Your task to perform on an android device: Go to settings Image 0: 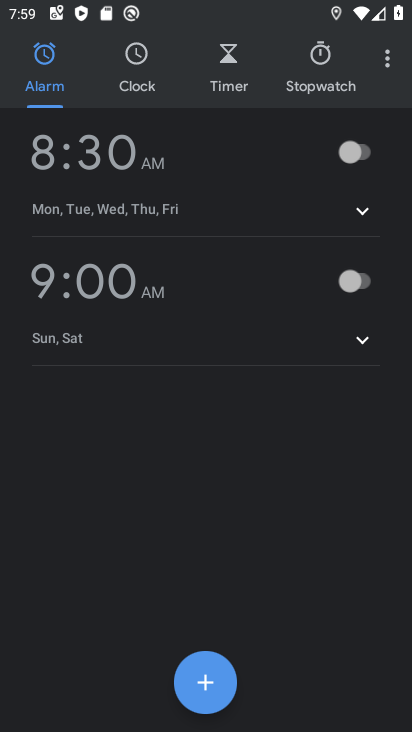
Step 0: press home button
Your task to perform on an android device: Go to settings Image 1: 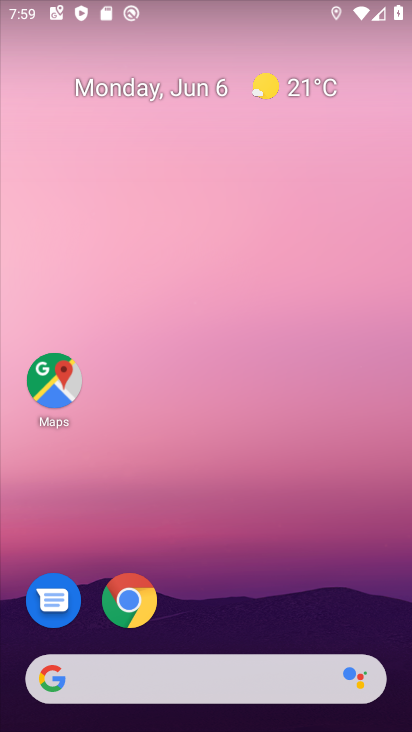
Step 1: drag from (377, 618) to (300, 17)
Your task to perform on an android device: Go to settings Image 2: 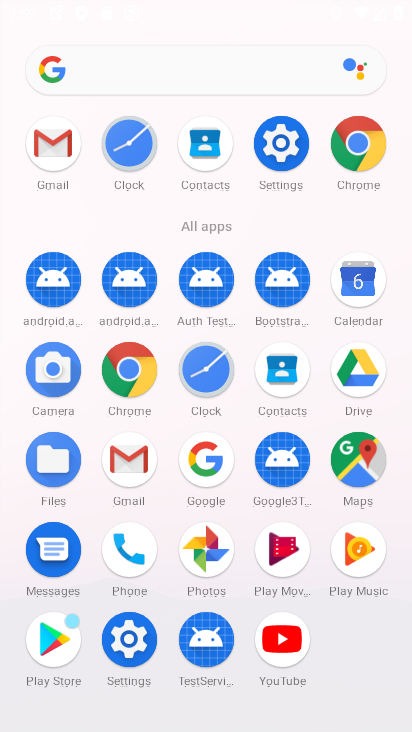
Step 2: click (125, 634)
Your task to perform on an android device: Go to settings Image 3: 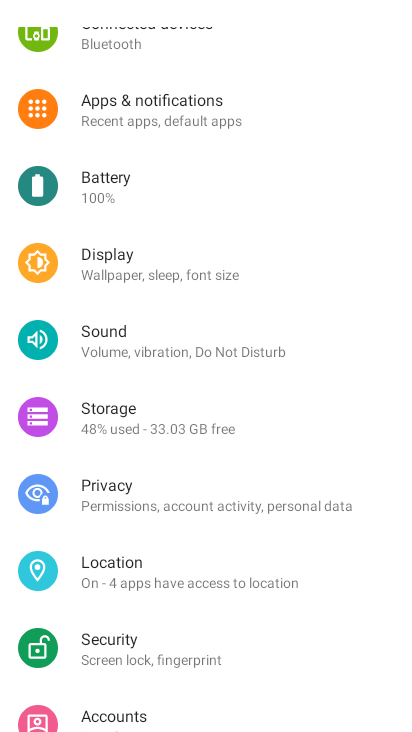
Step 3: task complete